Your task to perform on an android device: Do I have any events tomorrow? Image 0: 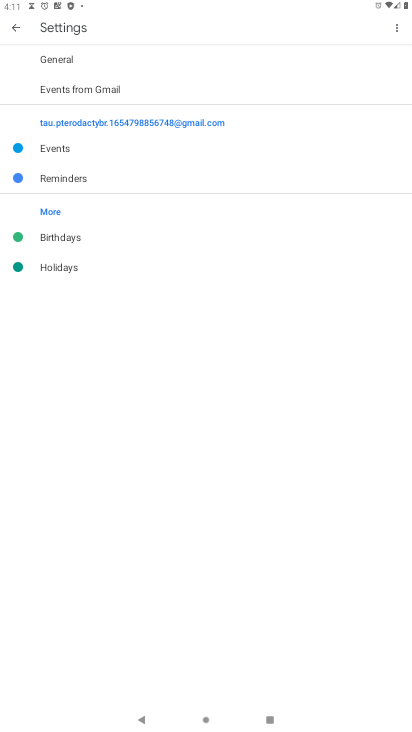
Step 0: press home button
Your task to perform on an android device: Do I have any events tomorrow? Image 1: 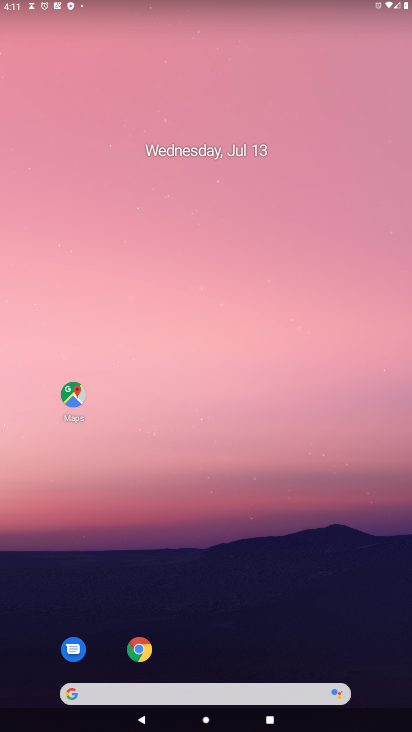
Step 1: drag from (231, 716) to (273, 151)
Your task to perform on an android device: Do I have any events tomorrow? Image 2: 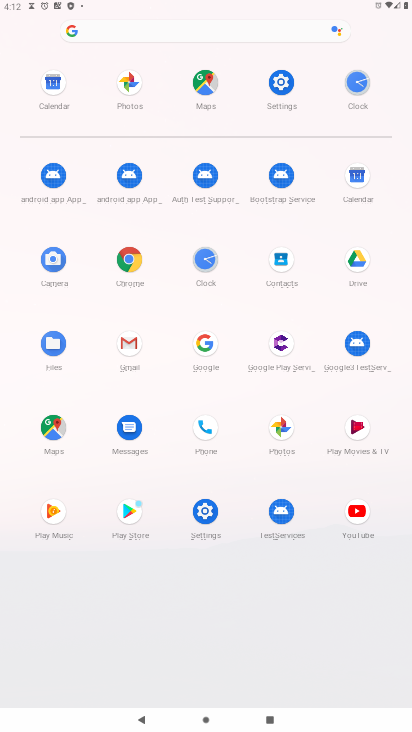
Step 2: click (359, 171)
Your task to perform on an android device: Do I have any events tomorrow? Image 3: 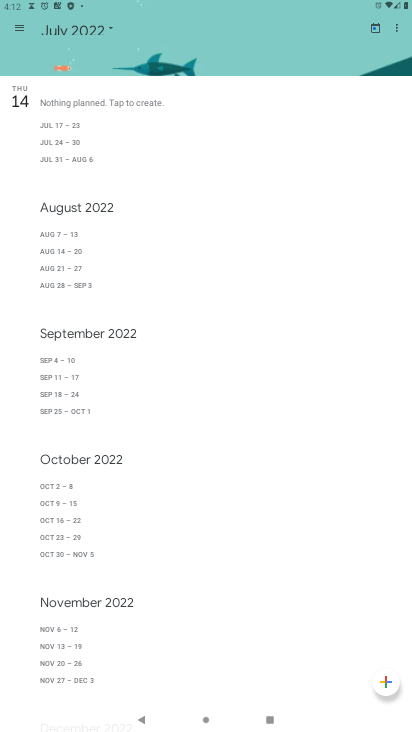
Step 3: click (112, 28)
Your task to perform on an android device: Do I have any events tomorrow? Image 4: 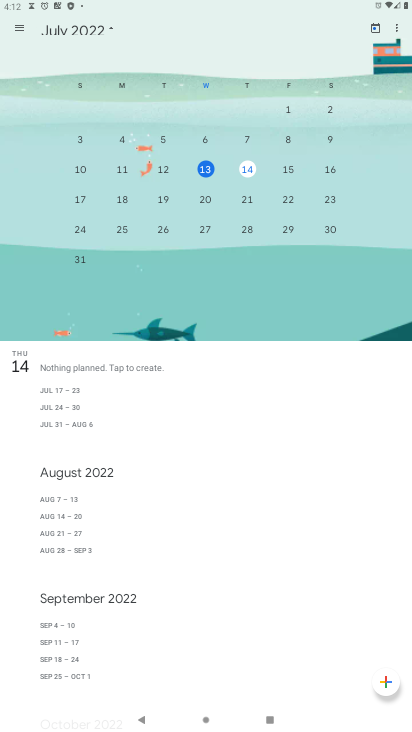
Step 4: click (246, 169)
Your task to perform on an android device: Do I have any events tomorrow? Image 5: 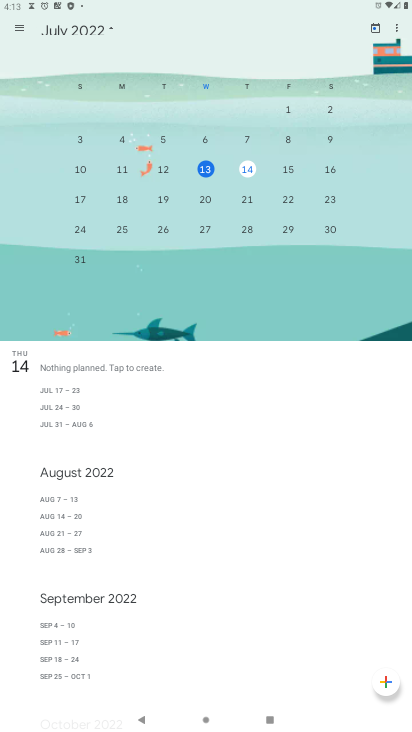
Step 5: task complete